Your task to perform on an android device: change notification settings in the gmail app Image 0: 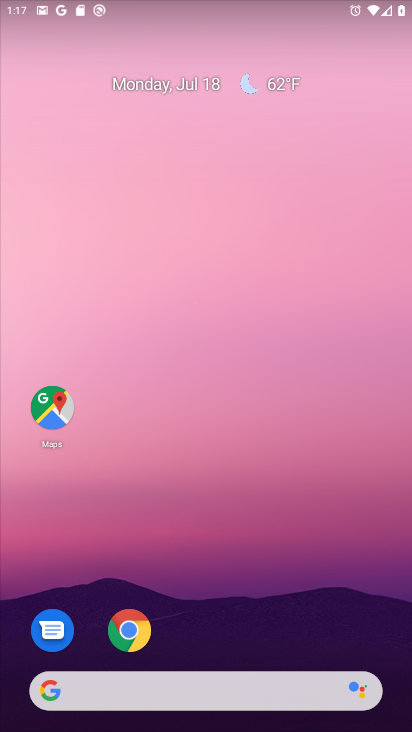
Step 0: drag from (210, 612) to (210, 222)
Your task to perform on an android device: change notification settings in the gmail app Image 1: 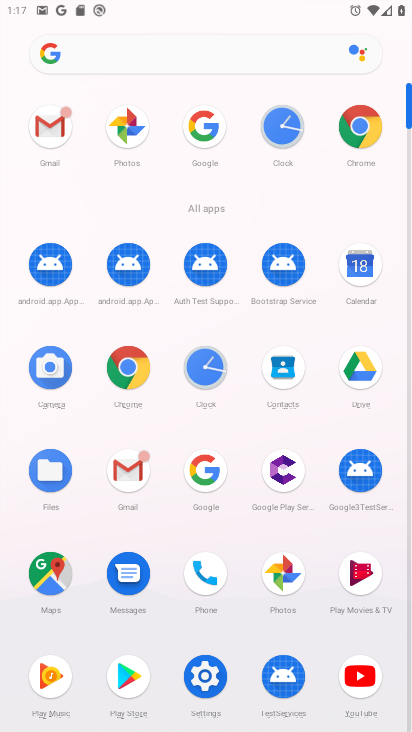
Step 1: click (120, 479)
Your task to perform on an android device: change notification settings in the gmail app Image 2: 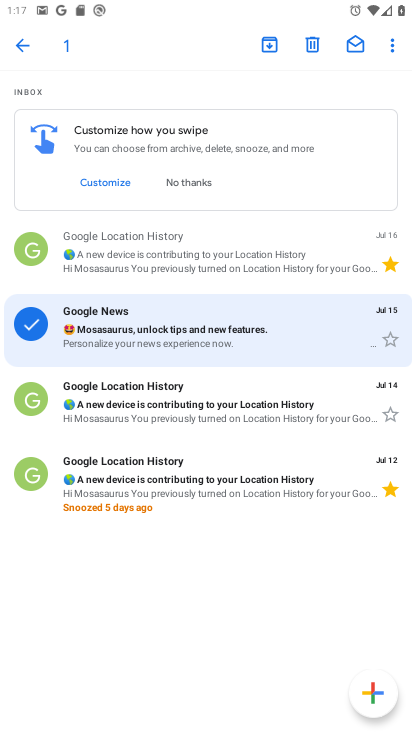
Step 2: click (21, 52)
Your task to perform on an android device: change notification settings in the gmail app Image 3: 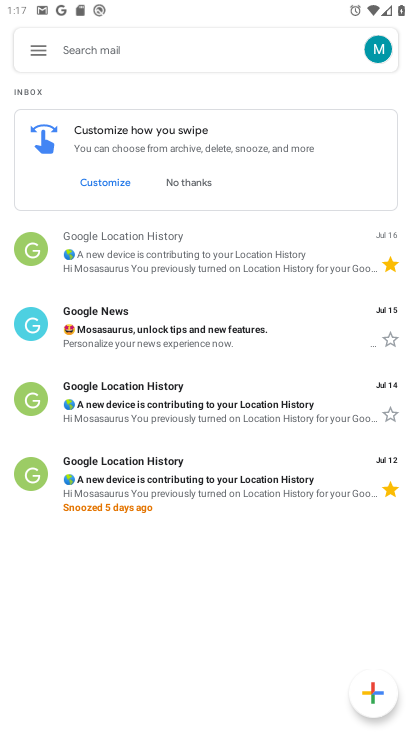
Step 3: click (35, 55)
Your task to perform on an android device: change notification settings in the gmail app Image 4: 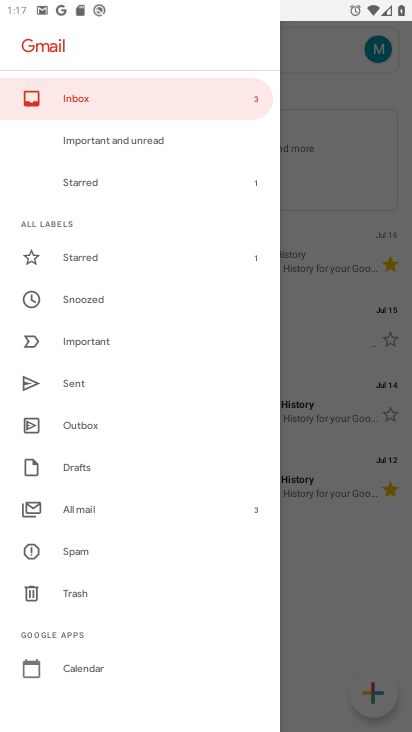
Step 4: drag from (81, 679) to (69, 253)
Your task to perform on an android device: change notification settings in the gmail app Image 5: 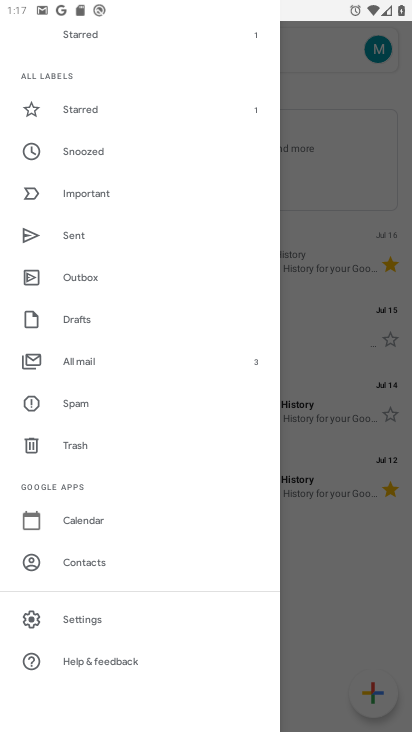
Step 5: click (64, 679)
Your task to perform on an android device: change notification settings in the gmail app Image 6: 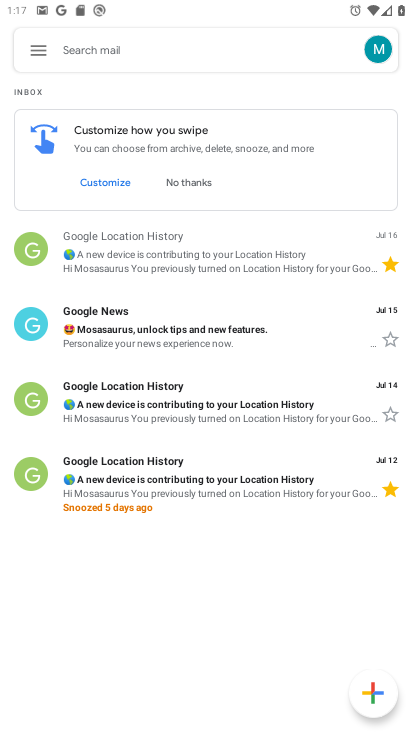
Step 6: click (38, 52)
Your task to perform on an android device: change notification settings in the gmail app Image 7: 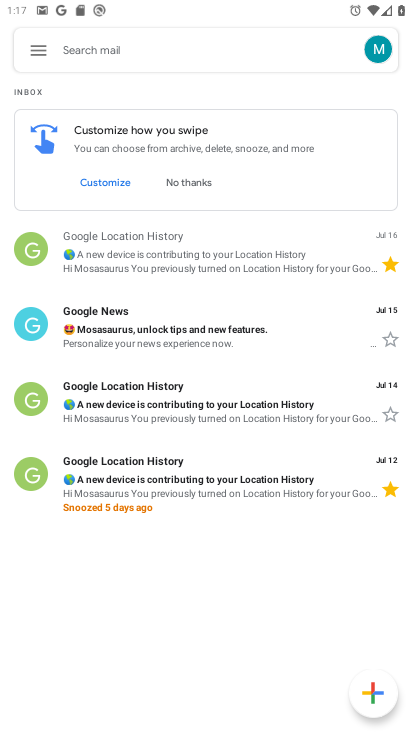
Step 7: click (27, 50)
Your task to perform on an android device: change notification settings in the gmail app Image 8: 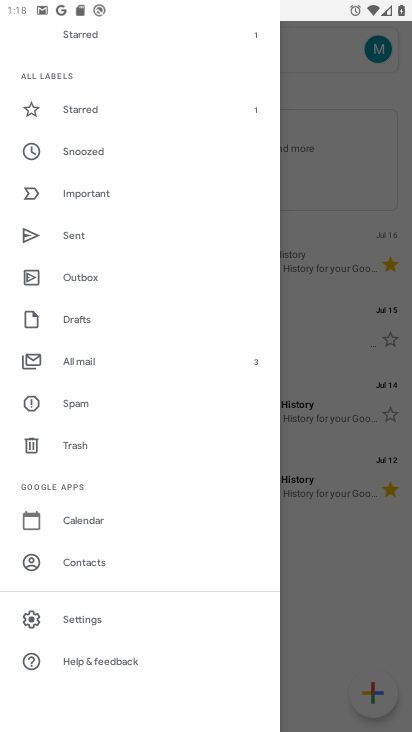
Step 8: click (71, 618)
Your task to perform on an android device: change notification settings in the gmail app Image 9: 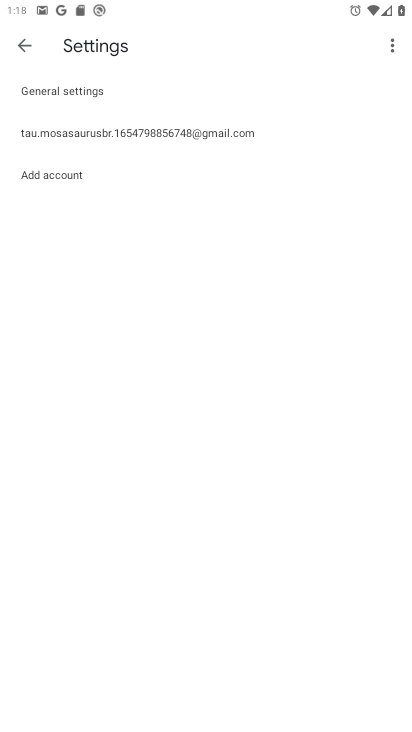
Step 9: click (55, 94)
Your task to perform on an android device: change notification settings in the gmail app Image 10: 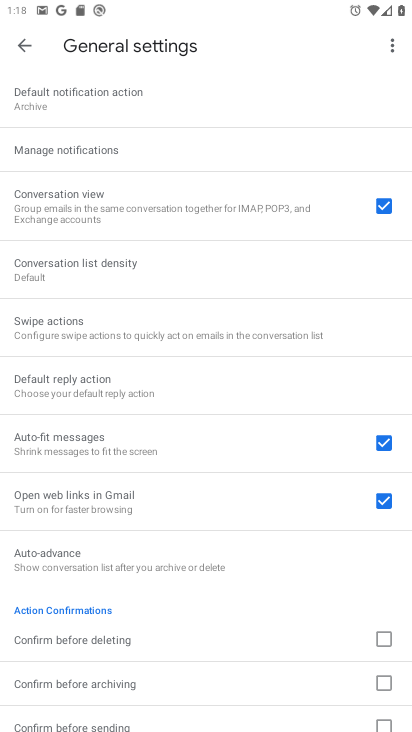
Step 10: click (58, 147)
Your task to perform on an android device: change notification settings in the gmail app Image 11: 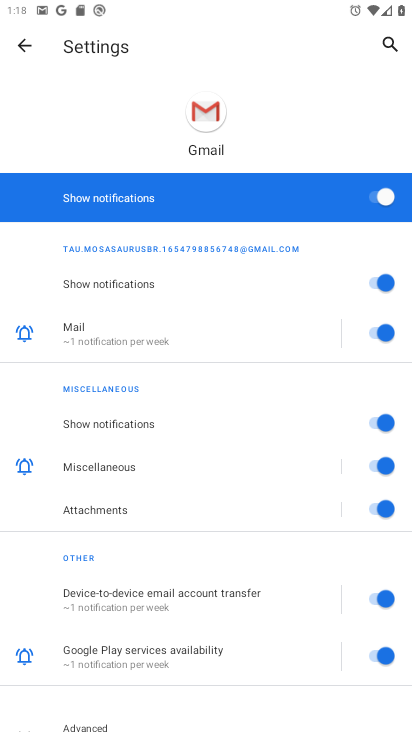
Step 11: click (370, 195)
Your task to perform on an android device: change notification settings in the gmail app Image 12: 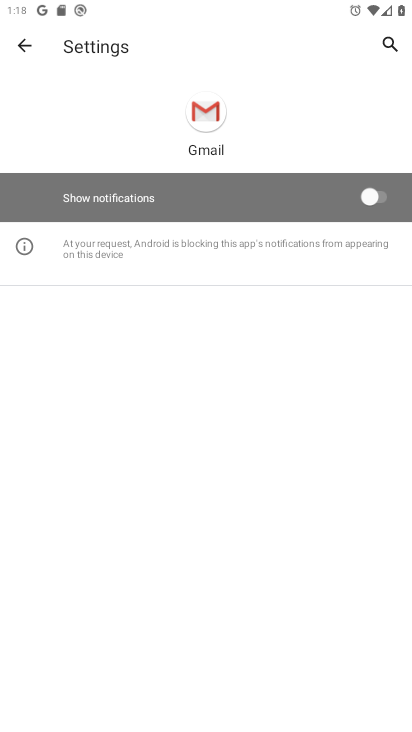
Step 12: task complete